Your task to perform on an android device: empty trash in google photos Image 0: 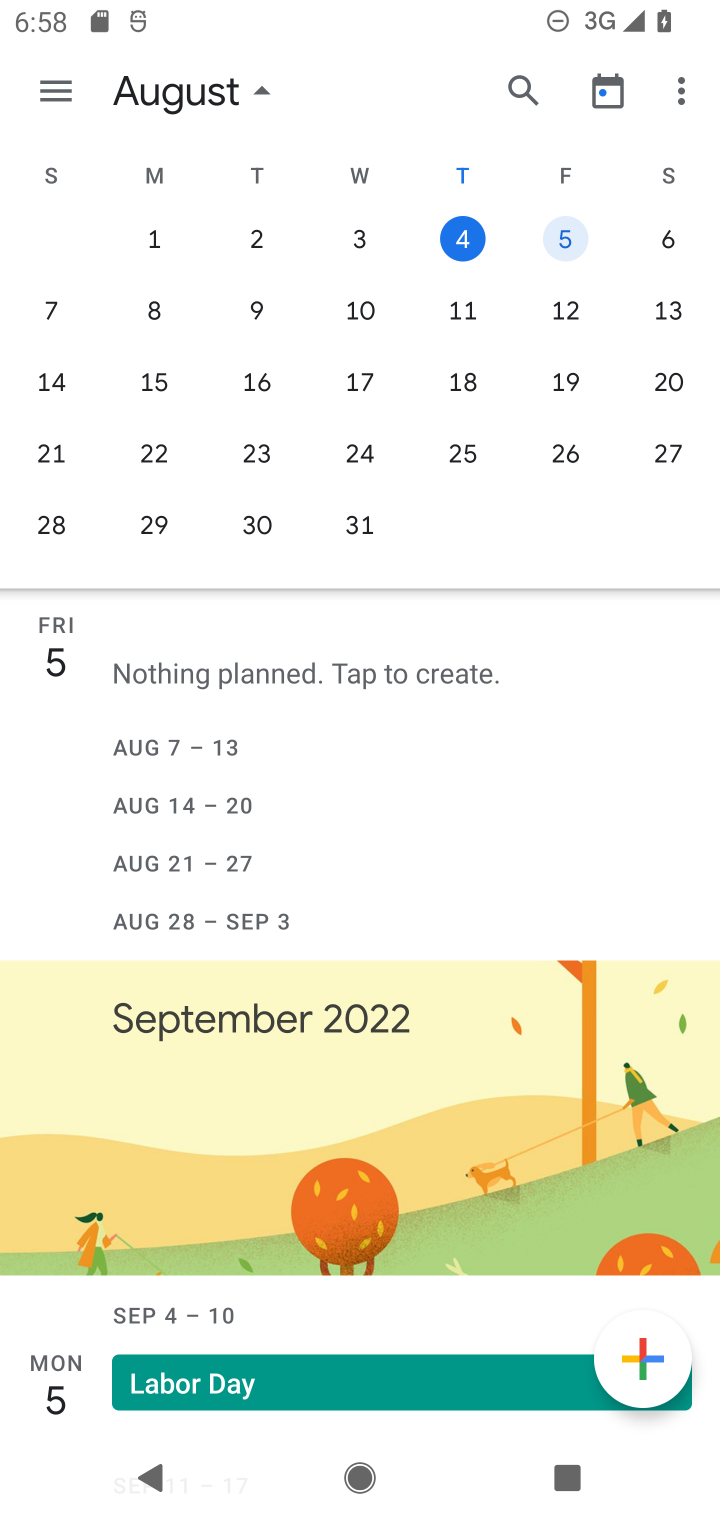
Step 0: press home button
Your task to perform on an android device: empty trash in google photos Image 1: 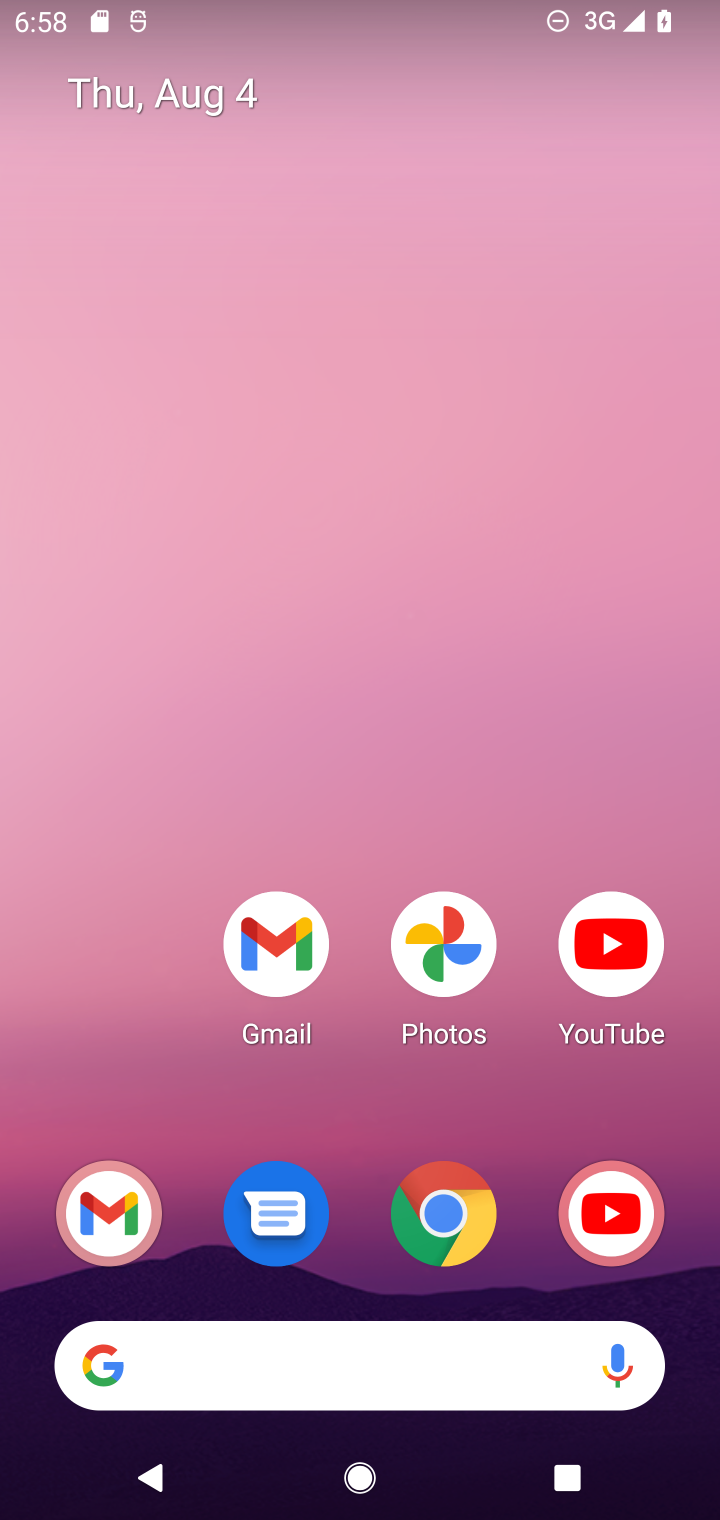
Step 1: drag from (149, 1092) to (139, 380)
Your task to perform on an android device: empty trash in google photos Image 2: 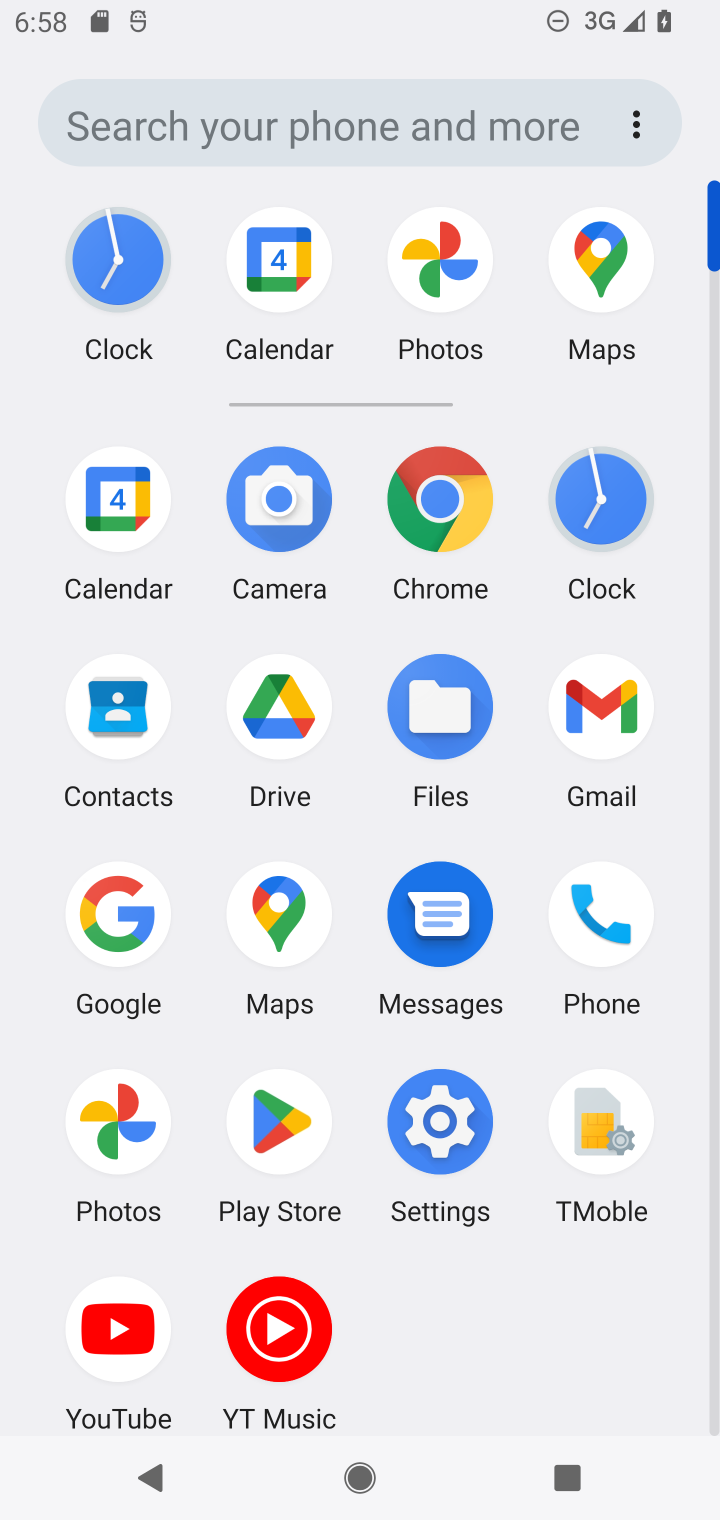
Step 2: click (105, 1135)
Your task to perform on an android device: empty trash in google photos Image 3: 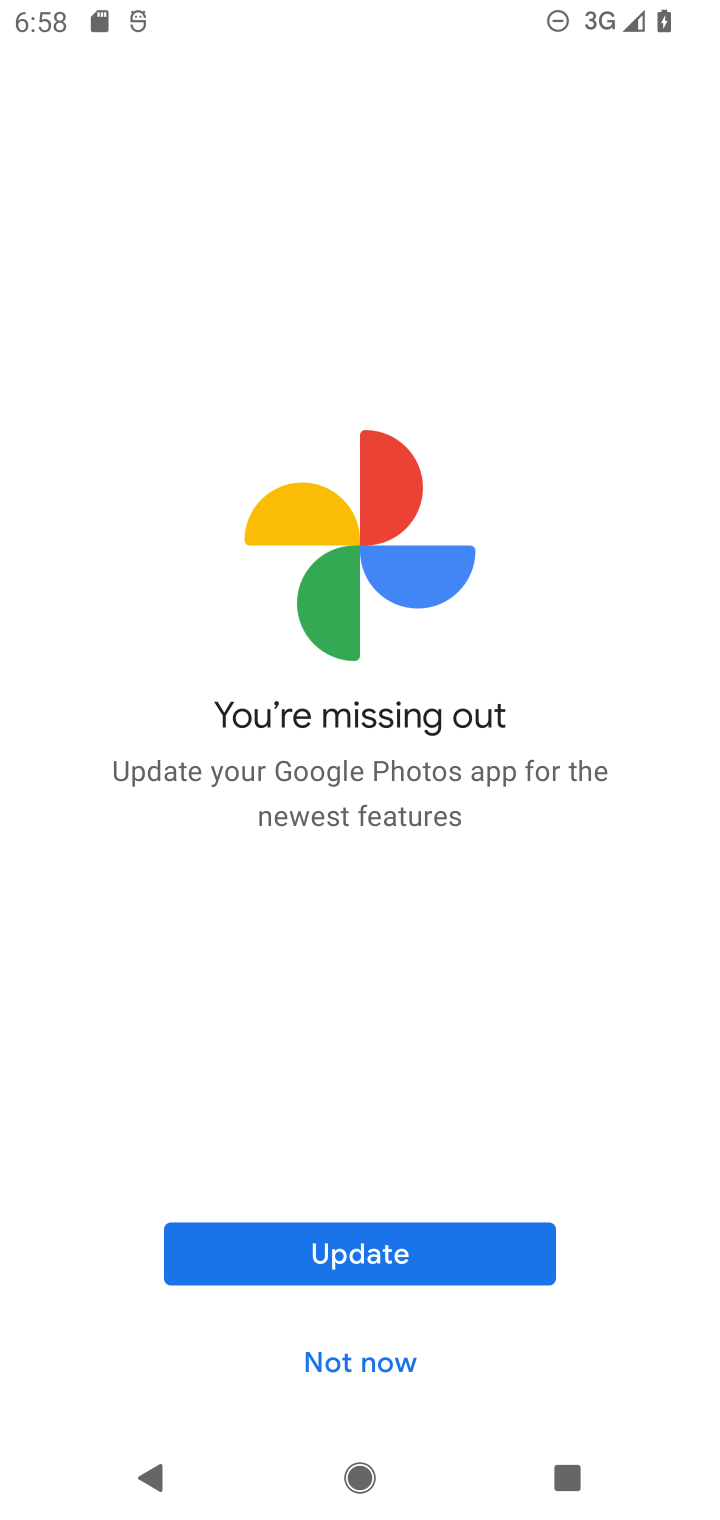
Step 3: click (340, 1363)
Your task to perform on an android device: empty trash in google photos Image 4: 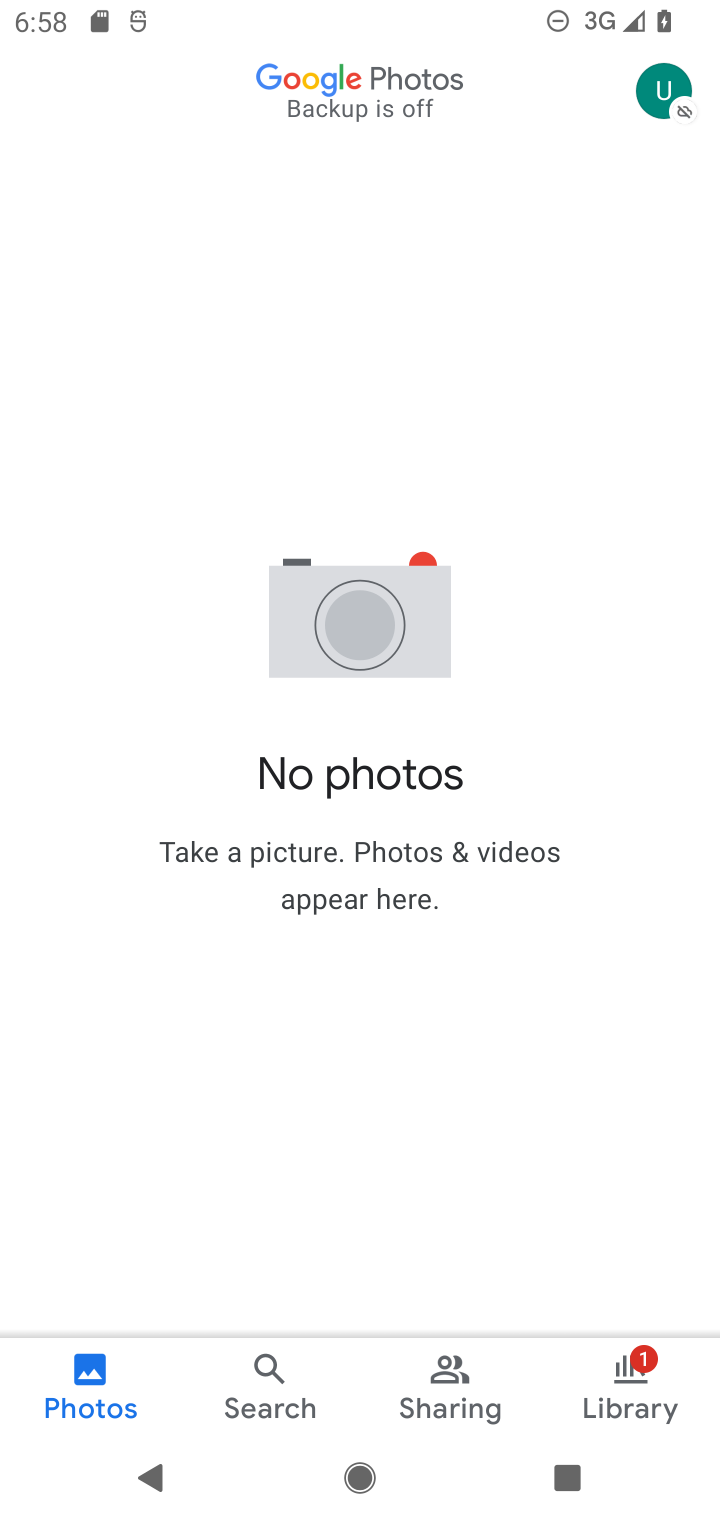
Step 4: click (647, 1378)
Your task to perform on an android device: empty trash in google photos Image 5: 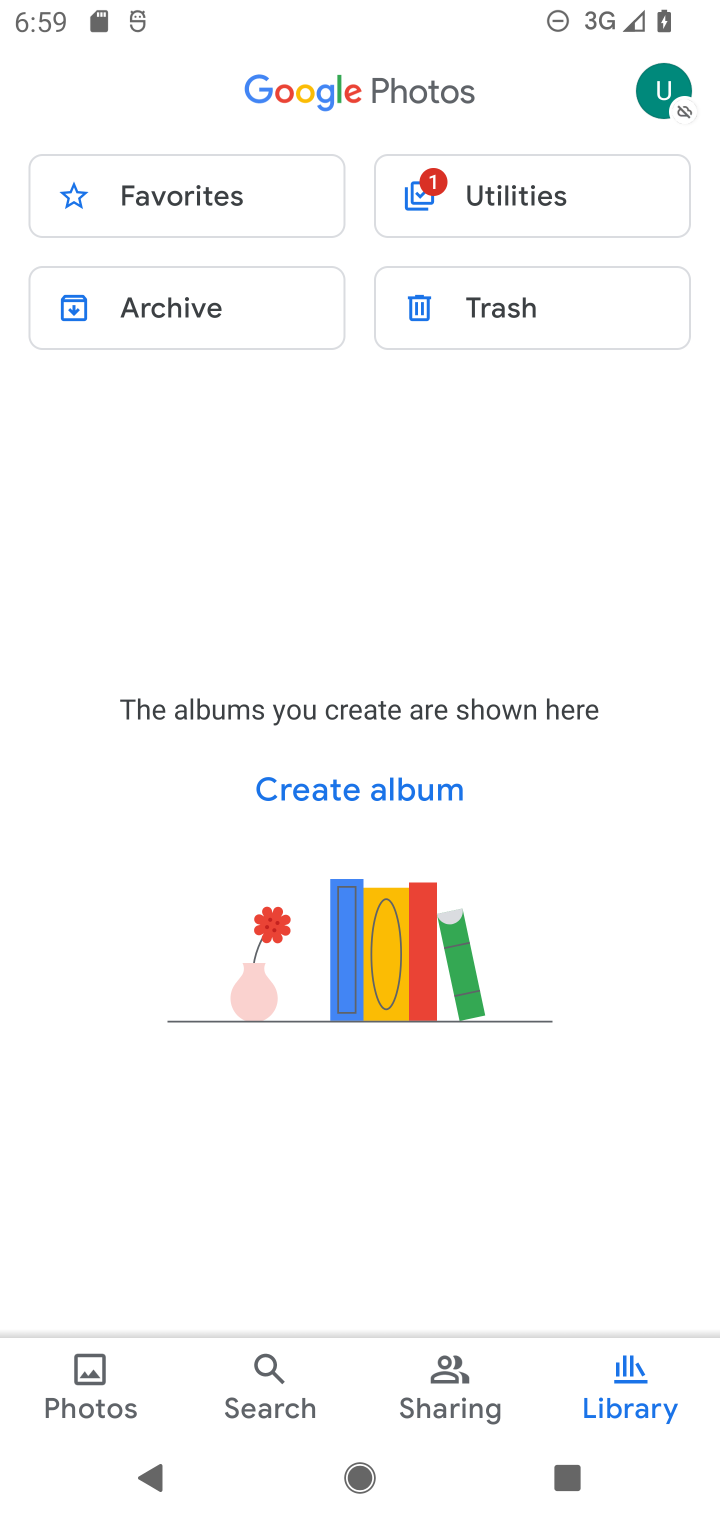
Step 5: click (529, 305)
Your task to perform on an android device: empty trash in google photos Image 6: 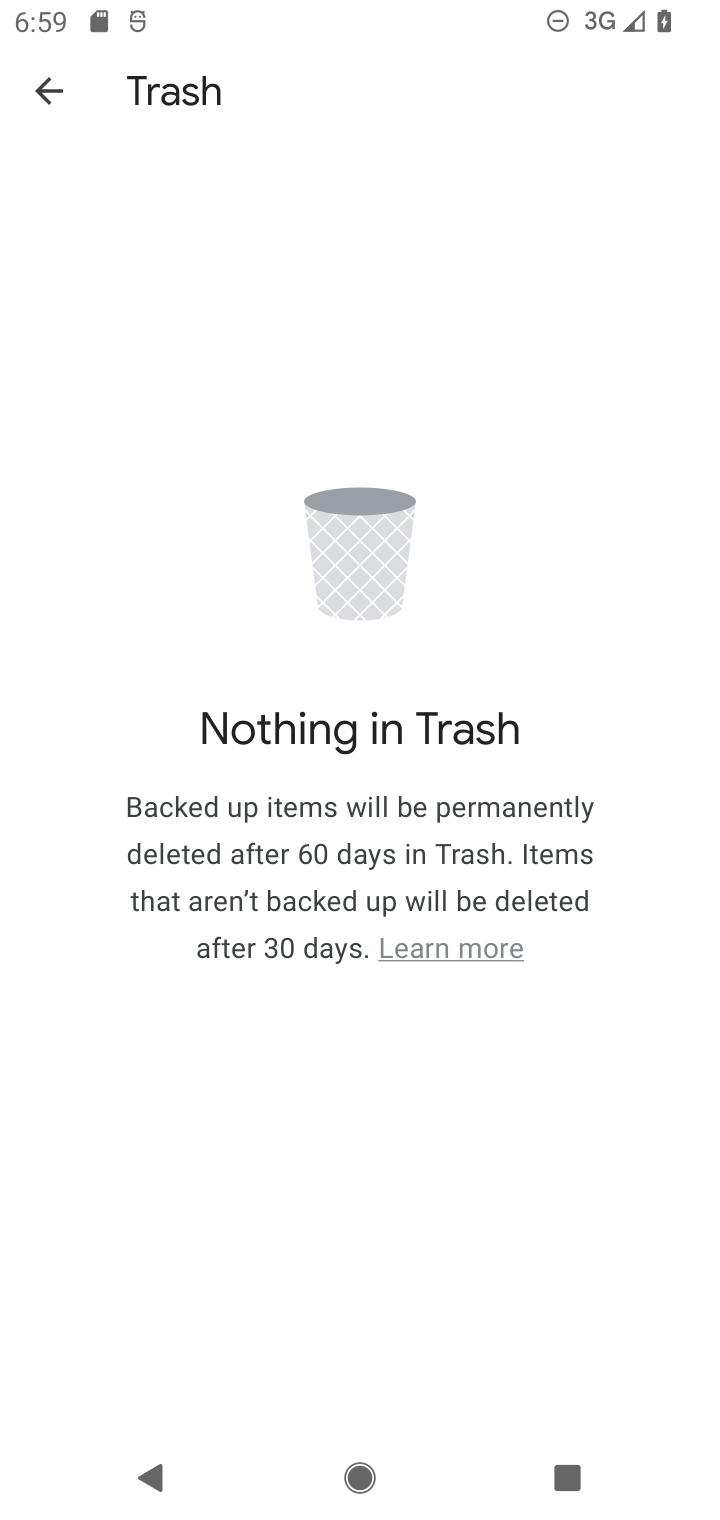
Step 6: task complete